Your task to perform on an android device: Is it going to rain tomorrow? Image 0: 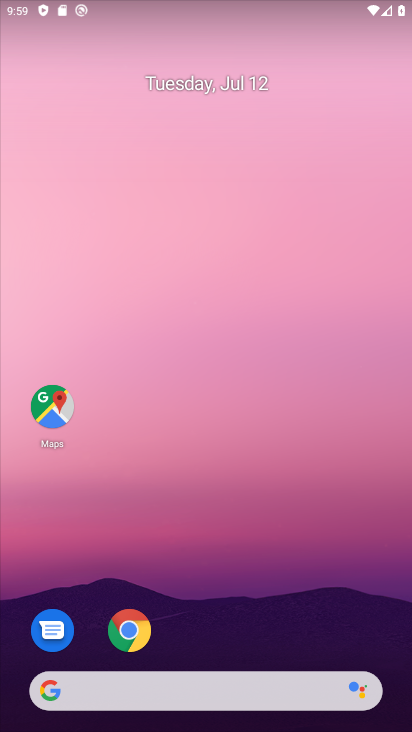
Step 0: click (166, 682)
Your task to perform on an android device: Is it going to rain tomorrow? Image 1: 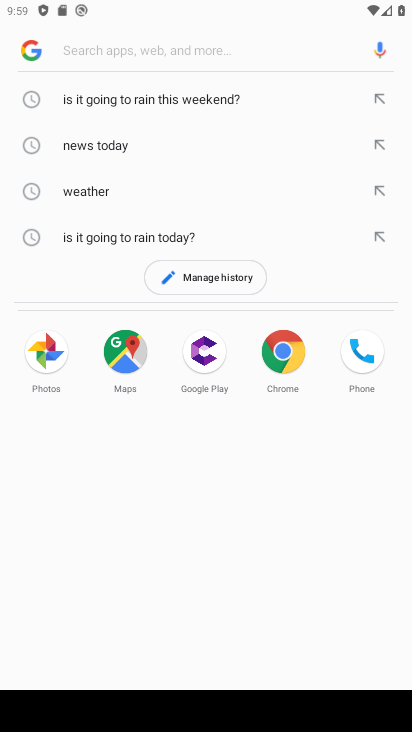
Step 1: click (159, 193)
Your task to perform on an android device: Is it going to rain tomorrow? Image 2: 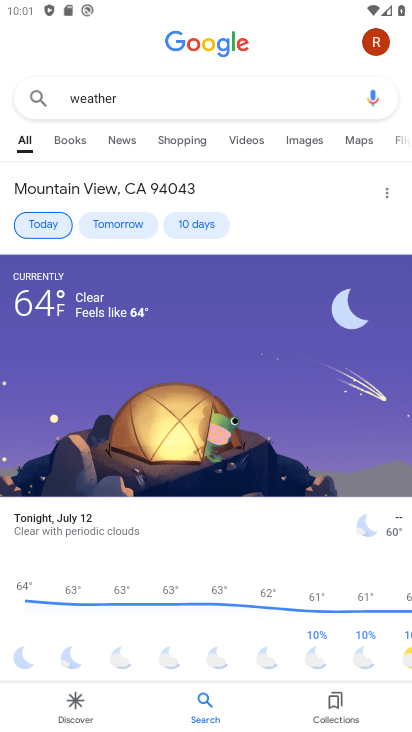
Step 2: click (117, 228)
Your task to perform on an android device: Is it going to rain tomorrow? Image 3: 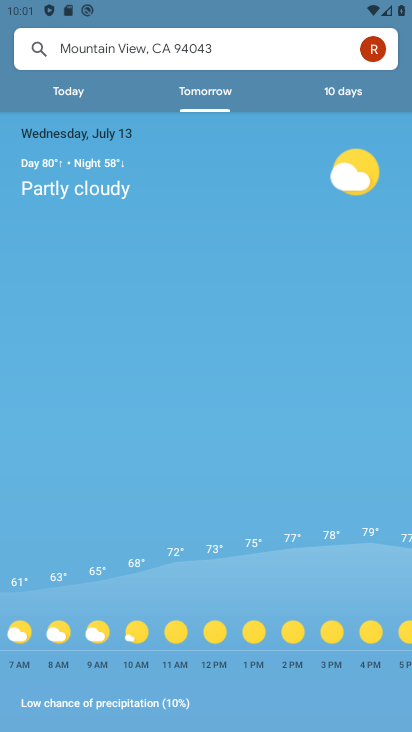
Step 3: task complete